Your task to perform on an android device: Go to accessibility settings Image 0: 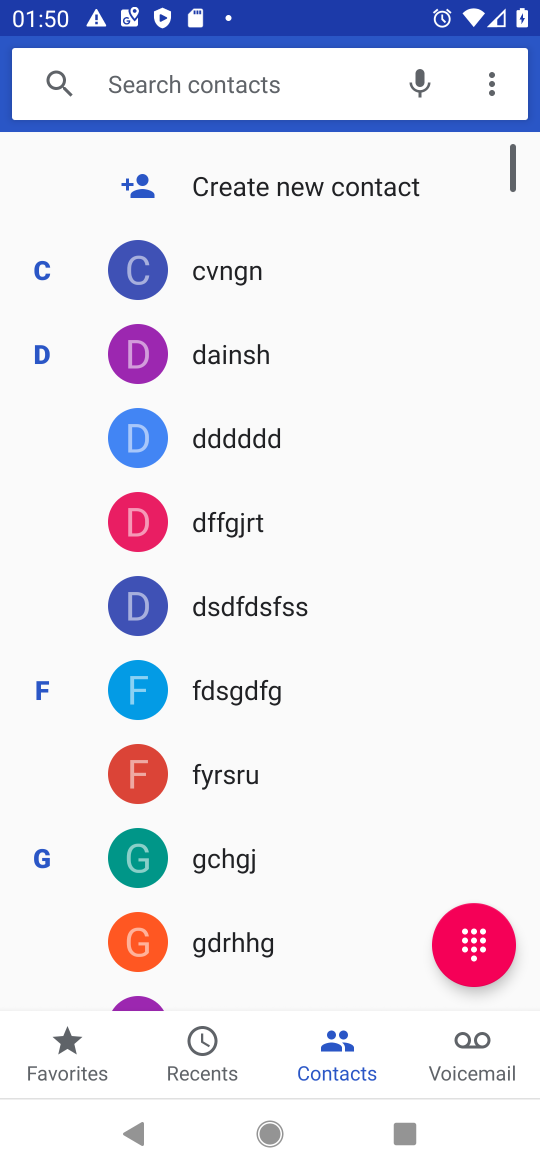
Step 0: press home button
Your task to perform on an android device: Go to accessibility settings Image 1: 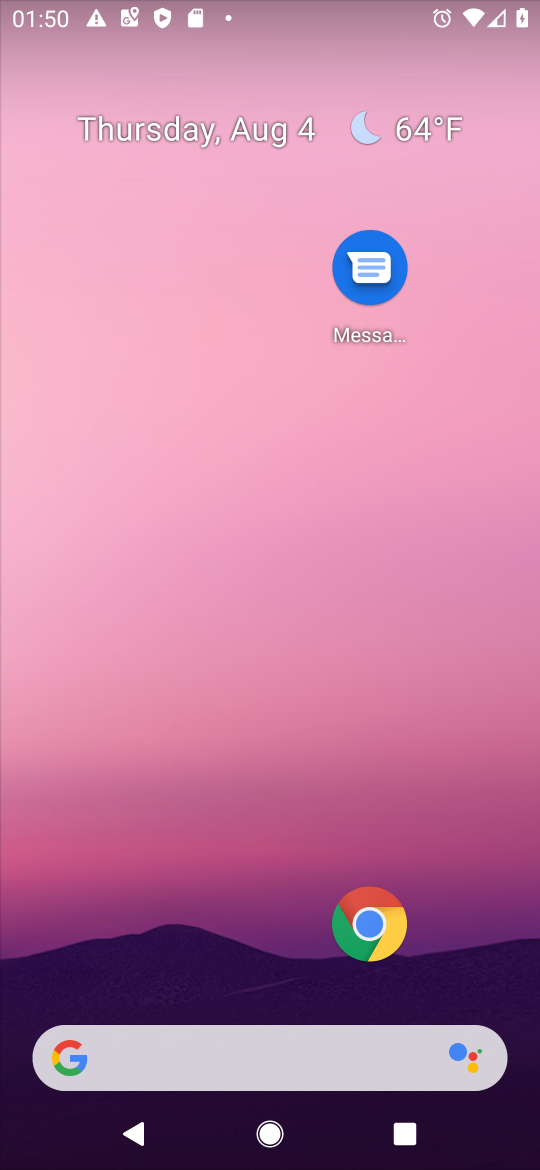
Step 1: drag from (154, 872) to (368, 22)
Your task to perform on an android device: Go to accessibility settings Image 2: 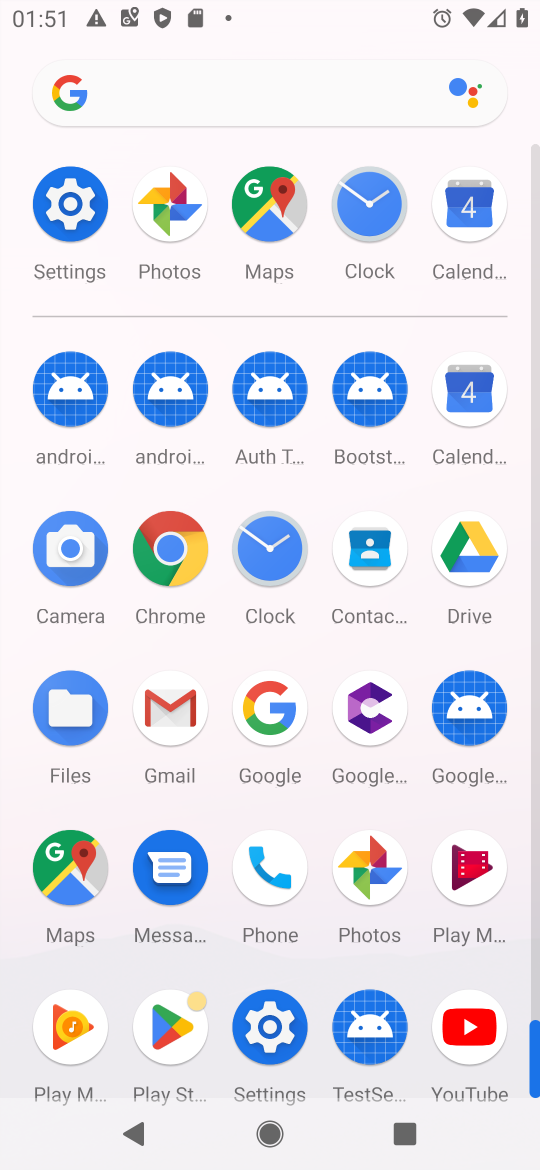
Step 2: click (278, 1015)
Your task to perform on an android device: Go to accessibility settings Image 3: 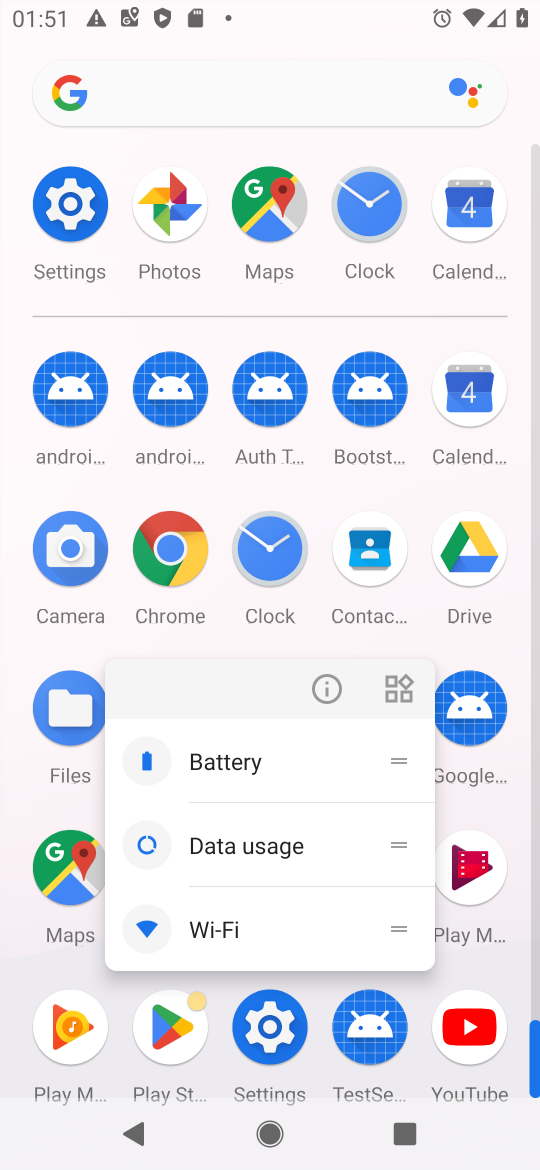
Step 3: click (270, 1039)
Your task to perform on an android device: Go to accessibility settings Image 4: 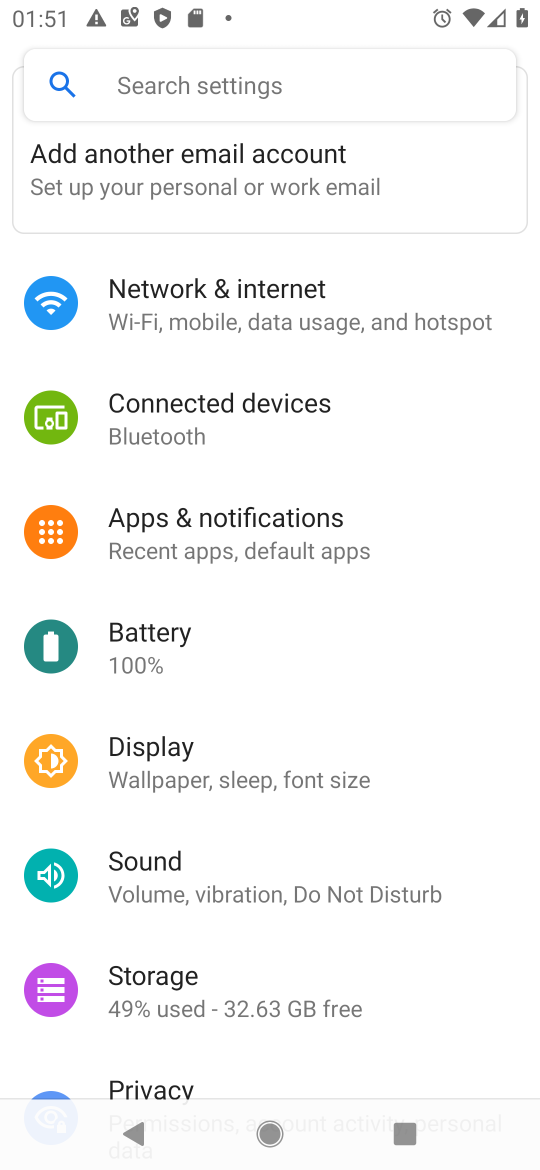
Step 4: drag from (252, 882) to (391, 186)
Your task to perform on an android device: Go to accessibility settings Image 5: 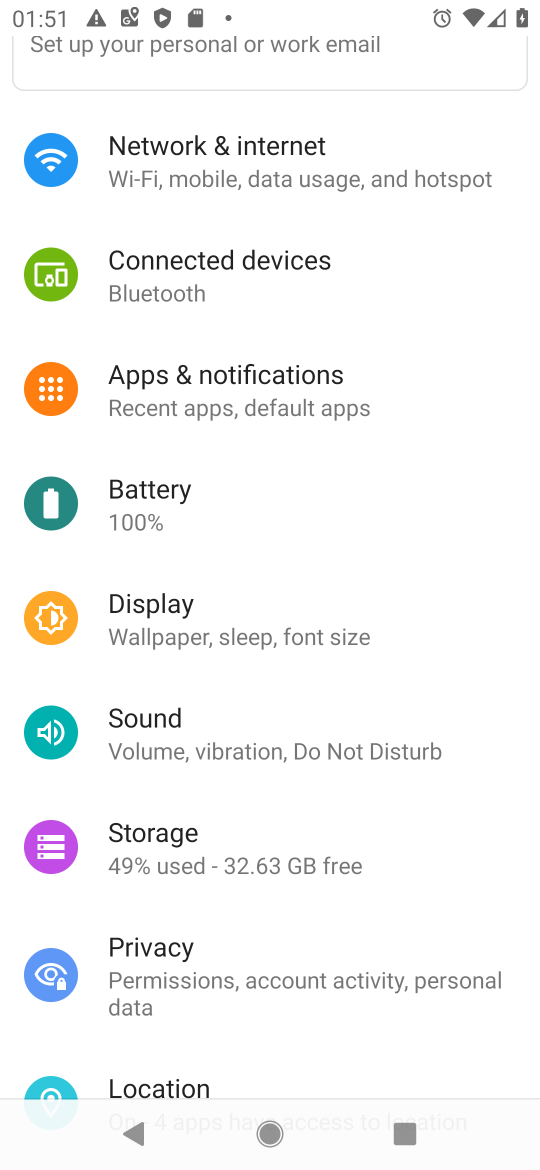
Step 5: drag from (260, 958) to (267, 495)
Your task to perform on an android device: Go to accessibility settings Image 6: 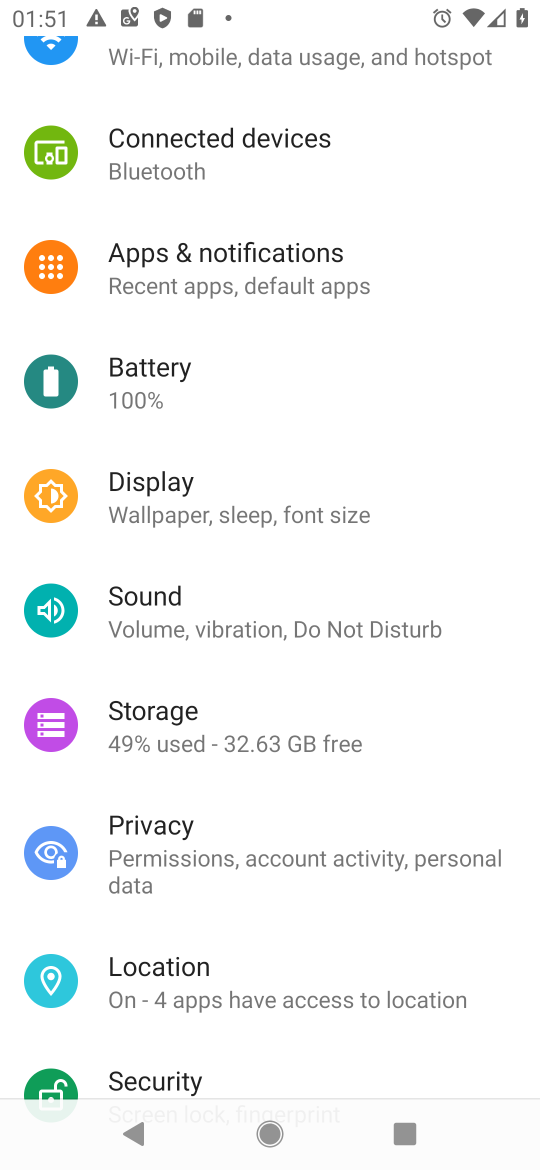
Step 6: drag from (252, 999) to (334, 623)
Your task to perform on an android device: Go to accessibility settings Image 7: 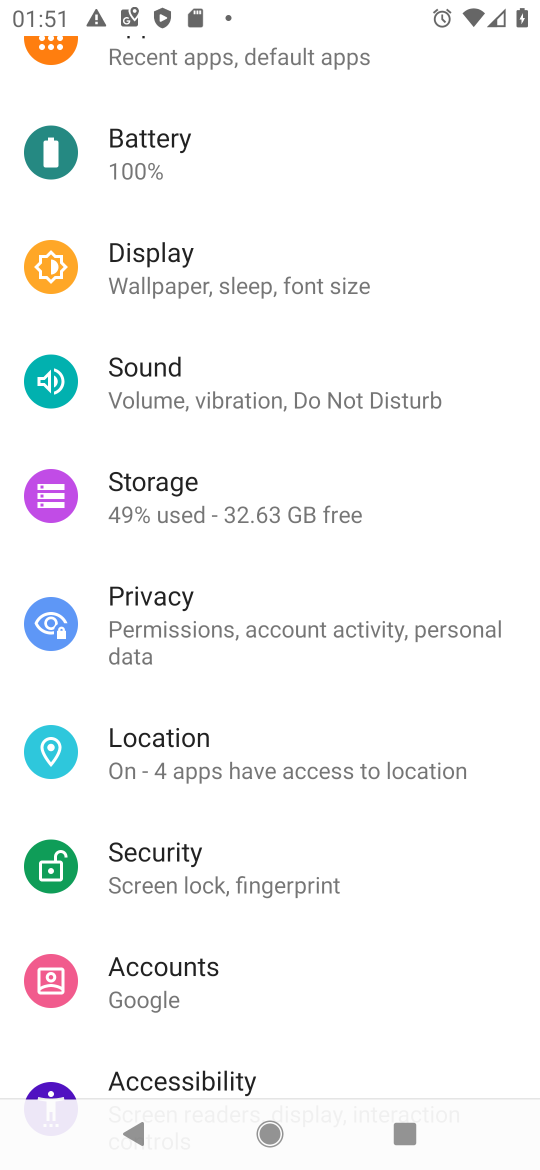
Step 7: click (349, 505)
Your task to perform on an android device: Go to accessibility settings Image 8: 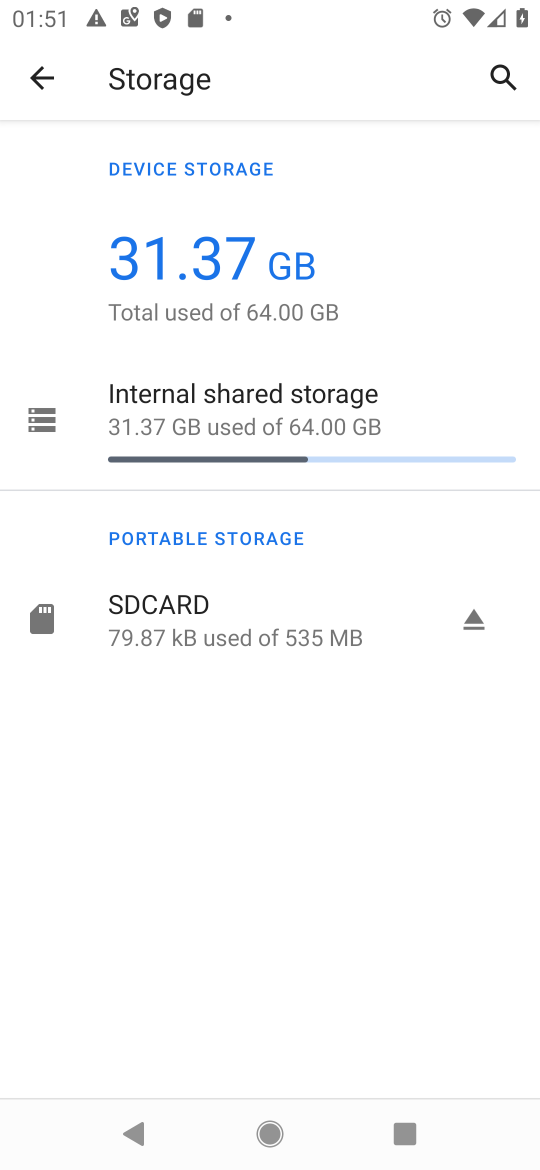
Step 8: click (51, 96)
Your task to perform on an android device: Go to accessibility settings Image 9: 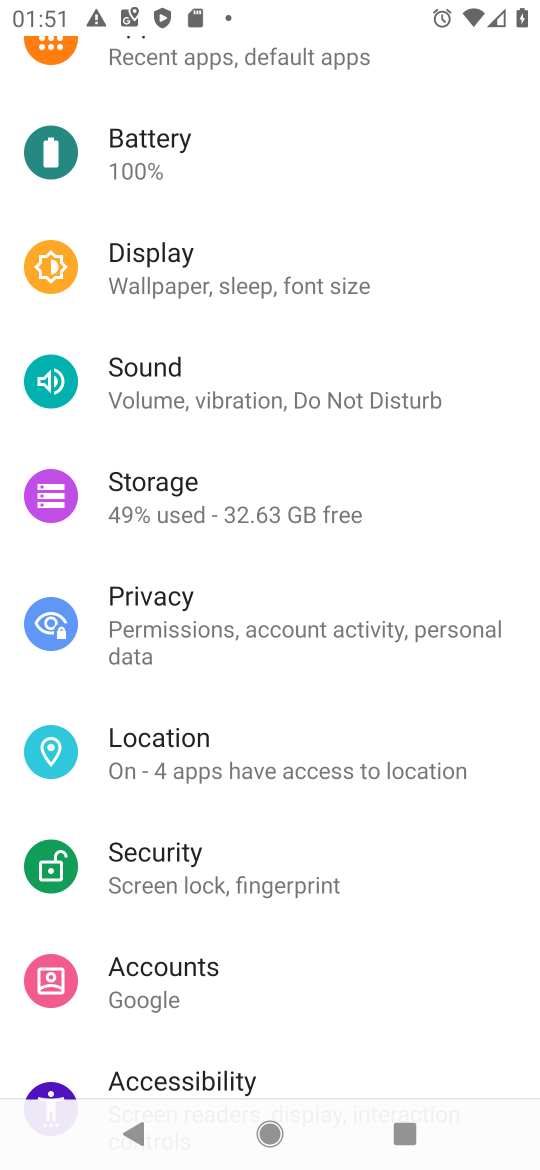
Step 9: click (162, 1075)
Your task to perform on an android device: Go to accessibility settings Image 10: 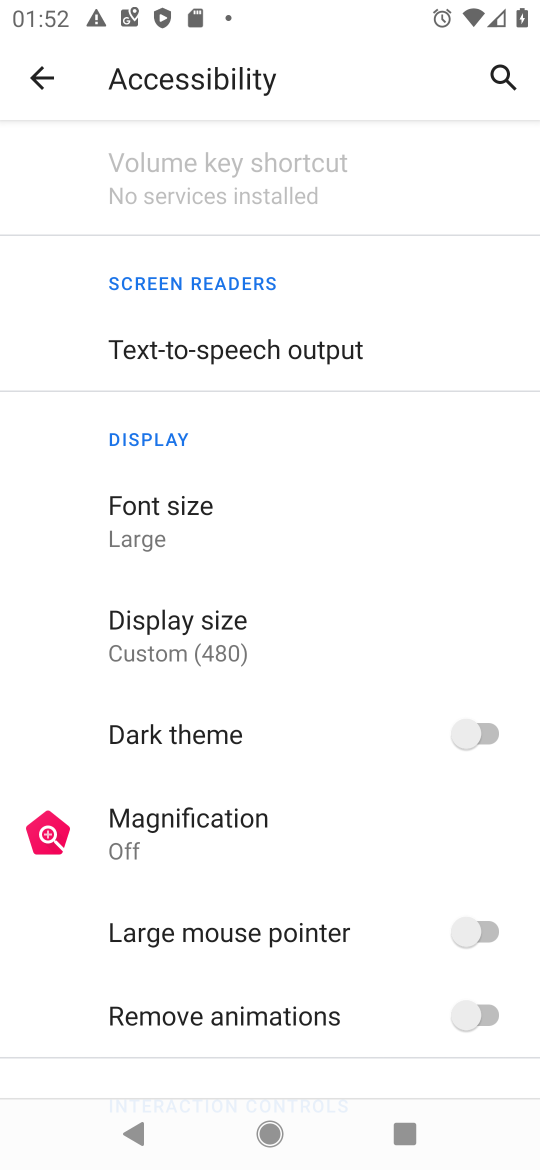
Step 10: task complete